Your task to perform on an android device: set an alarm Image 0: 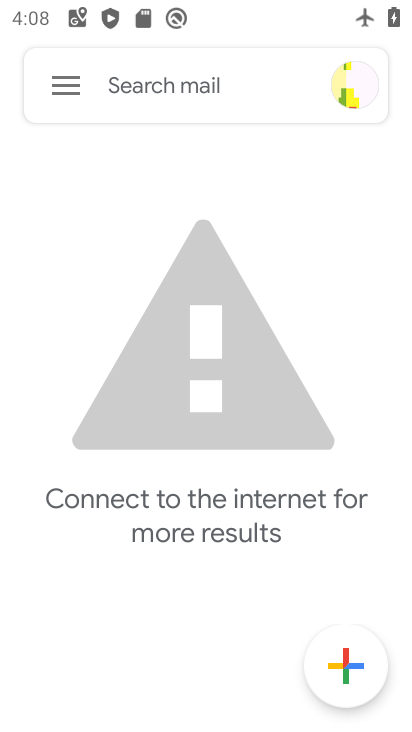
Step 0: press home button
Your task to perform on an android device: set an alarm Image 1: 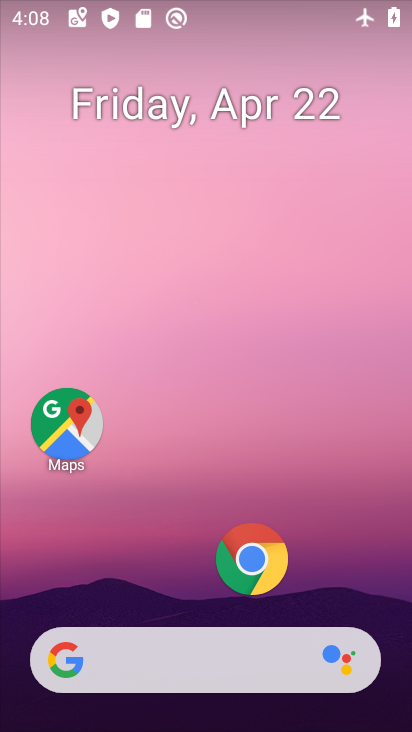
Step 1: drag from (195, 590) to (223, 79)
Your task to perform on an android device: set an alarm Image 2: 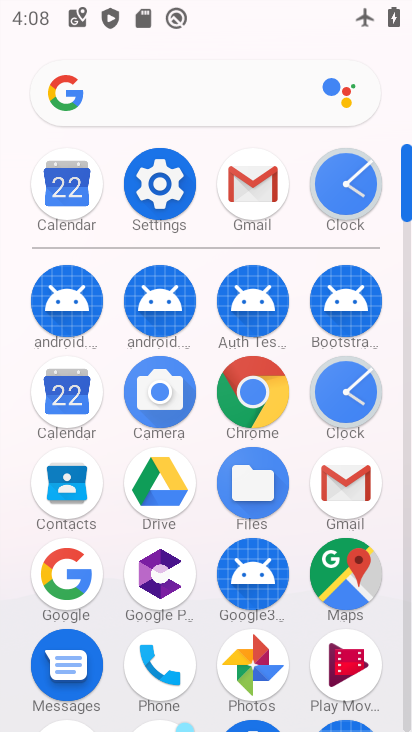
Step 2: click (356, 401)
Your task to perform on an android device: set an alarm Image 3: 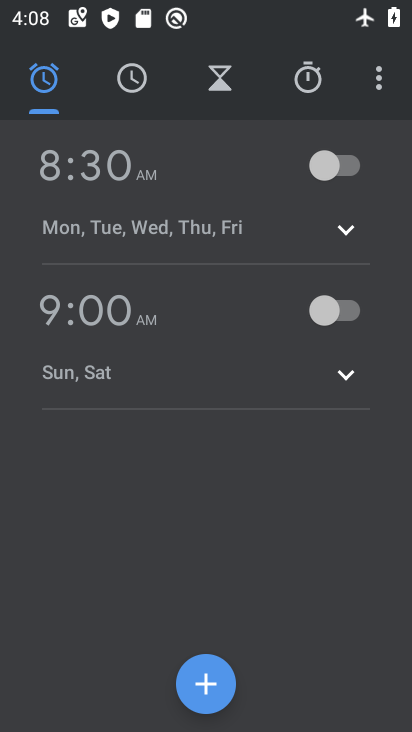
Step 3: click (350, 163)
Your task to perform on an android device: set an alarm Image 4: 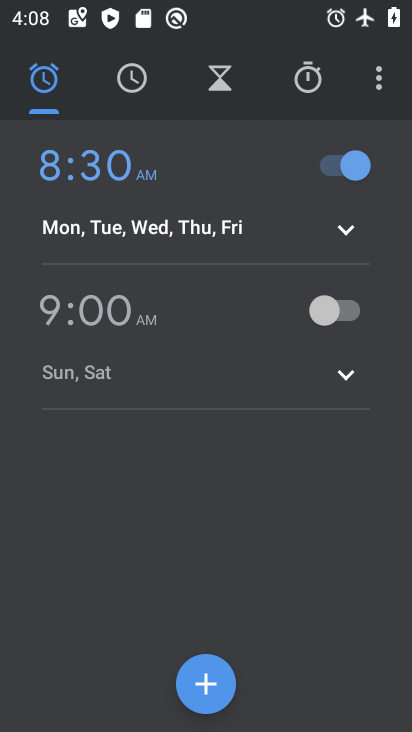
Step 4: task complete